Your task to perform on an android device: Go to sound settings Image 0: 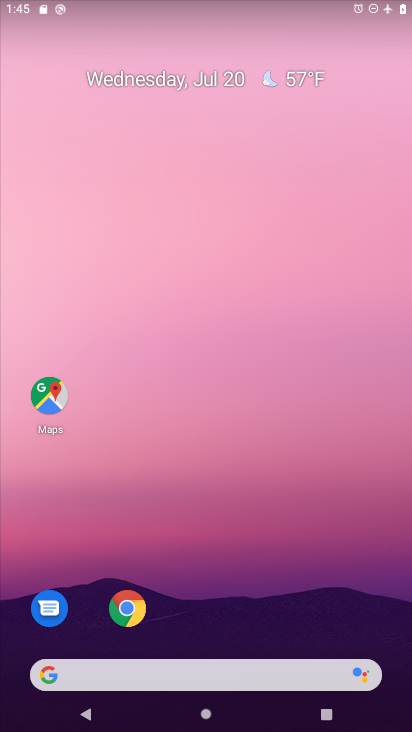
Step 0: drag from (182, 704) to (225, 233)
Your task to perform on an android device: Go to sound settings Image 1: 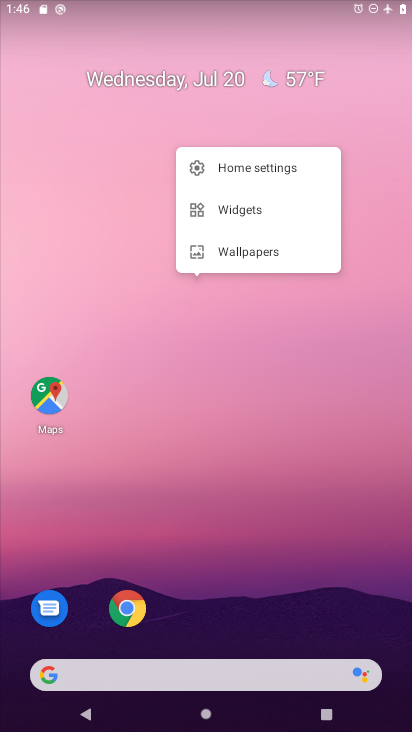
Step 1: drag from (121, 712) to (130, 223)
Your task to perform on an android device: Go to sound settings Image 2: 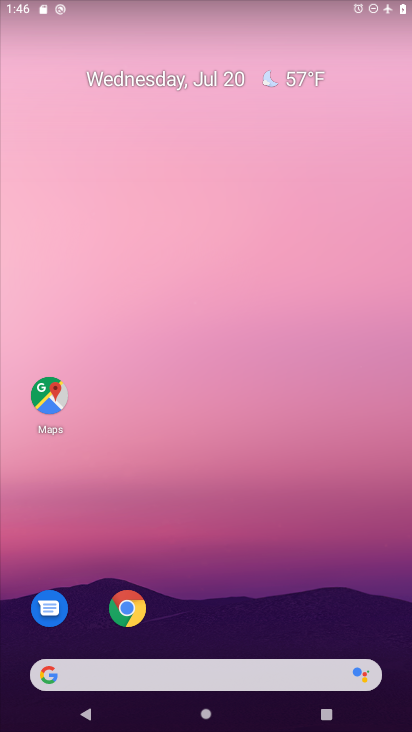
Step 2: drag from (129, 701) to (143, 125)
Your task to perform on an android device: Go to sound settings Image 3: 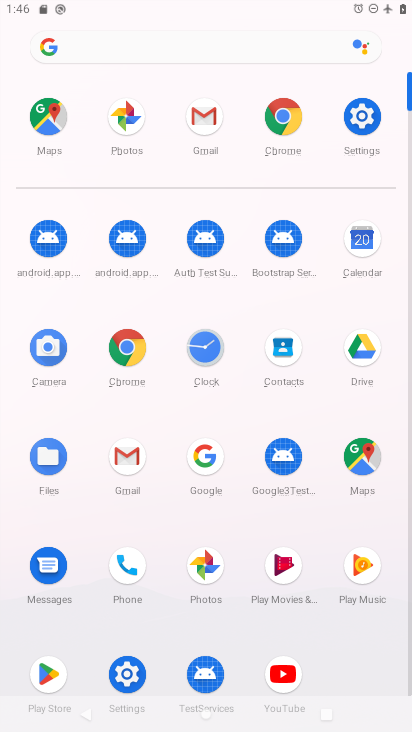
Step 3: click (361, 111)
Your task to perform on an android device: Go to sound settings Image 4: 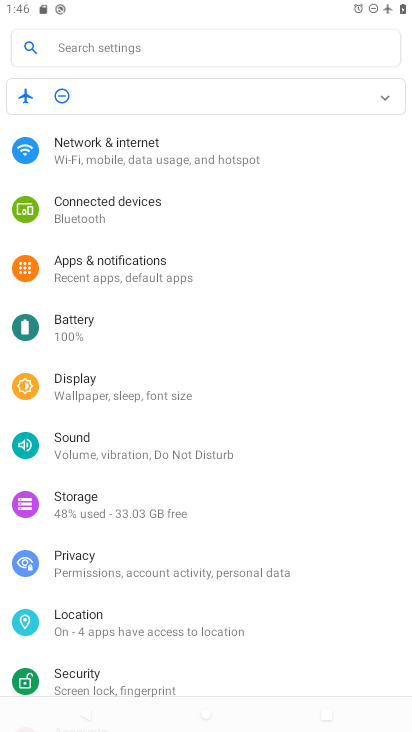
Step 4: click (132, 444)
Your task to perform on an android device: Go to sound settings Image 5: 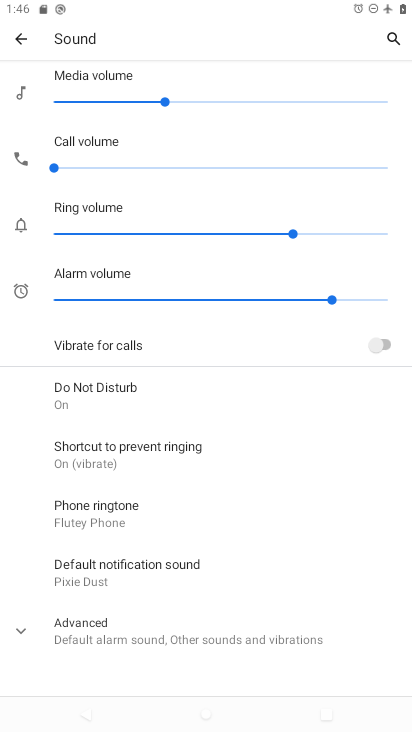
Step 5: task complete